Your task to perform on an android device: Open the calendar app, open the side menu, and click the "Day" option Image 0: 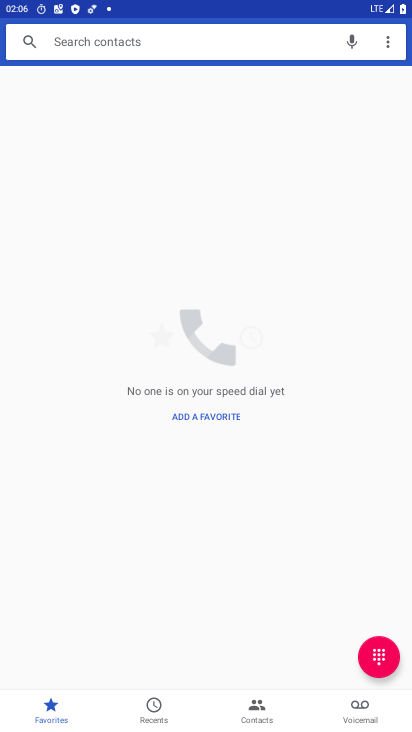
Step 0: drag from (235, 679) to (191, 16)
Your task to perform on an android device: Open the calendar app, open the side menu, and click the "Day" option Image 1: 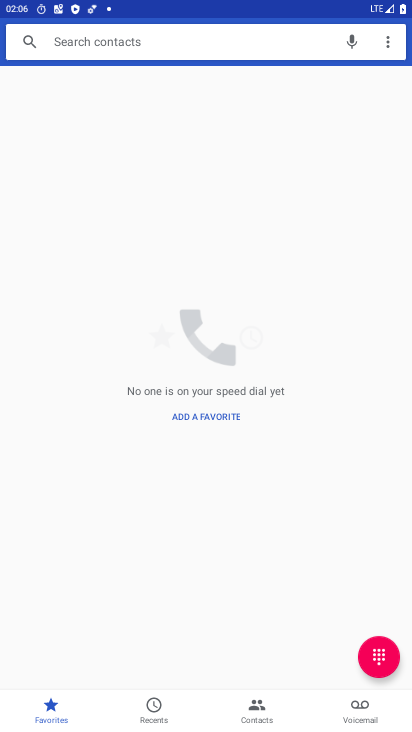
Step 1: press home button
Your task to perform on an android device: Open the calendar app, open the side menu, and click the "Day" option Image 2: 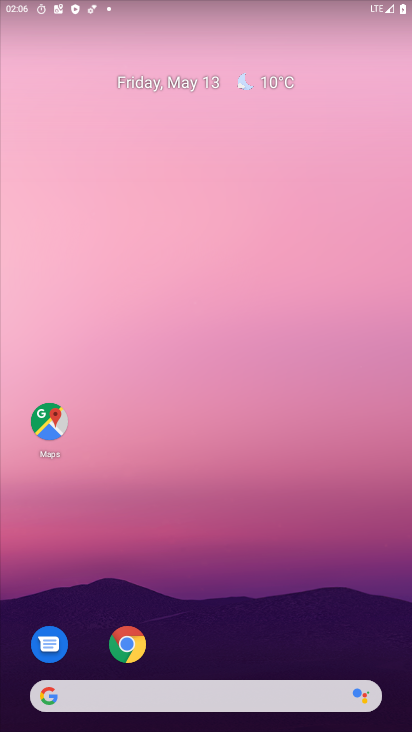
Step 2: drag from (202, 666) to (198, 16)
Your task to perform on an android device: Open the calendar app, open the side menu, and click the "Day" option Image 3: 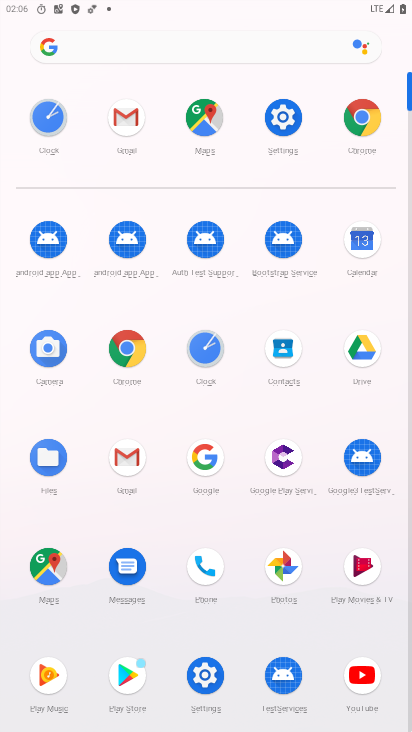
Step 3: click (361, 251)
Your task to perform on an android device: Open the calendar app, open the side menu, and click the "Day" option Image 4: 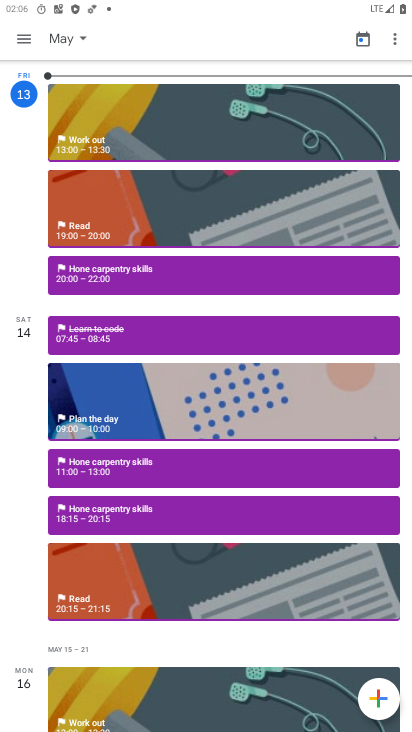
Step 4: click (23, 42)
Your task to perform on an android device: Open the calendar app, open the side menu, and click the "Day" option Image 5: 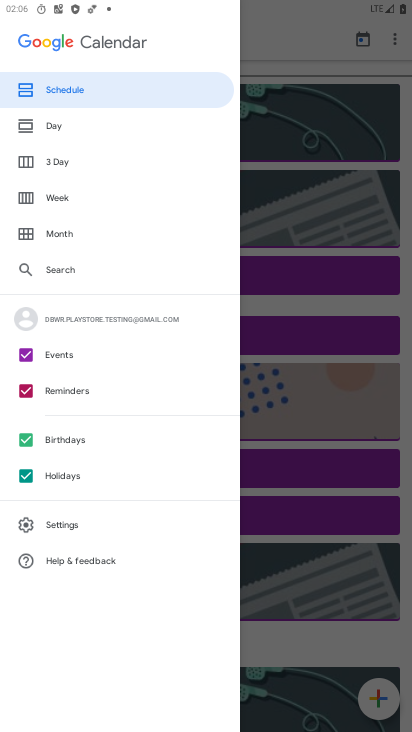
Step 5: click (60, 123)
Your task to perform on an android device: Open the calendar app, open the side menu, and click the "Day" option Image 6: 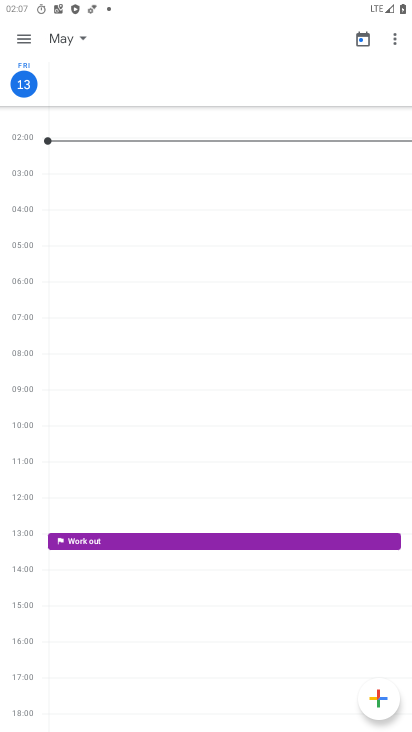
Step 6: task complete